Your task to perform on an android device: Open calendar and show me the first week of next month Image 0: 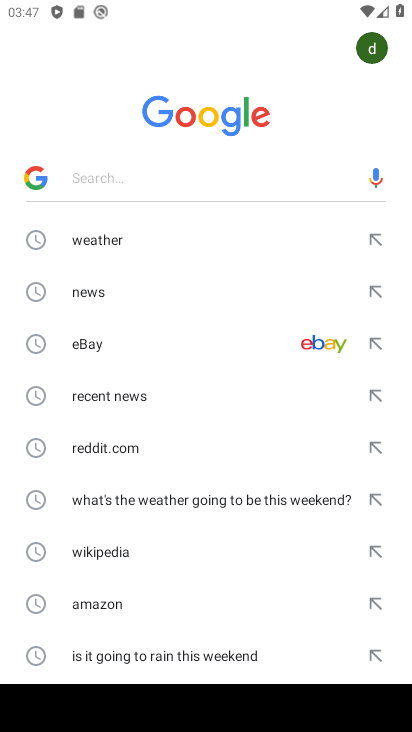
Step 0: press home button
Your task to perform on an android device: Open calendar and show me the first week of next month Image 1: 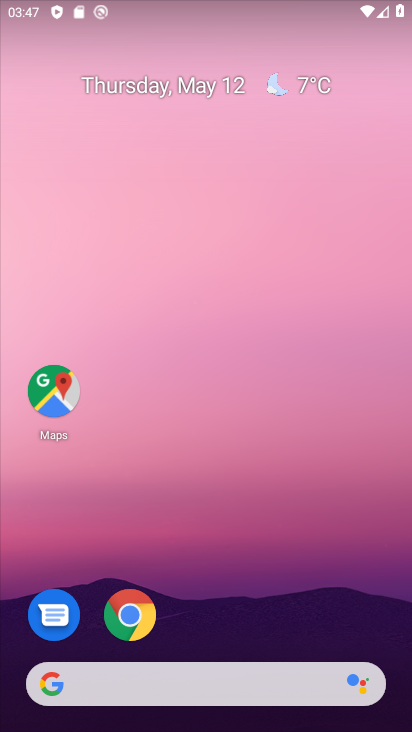
Step 1: drag from (227, 618) to (202, 49)
Your task to perform on an android device: Open calendar and show me the first week of next month Image 2: 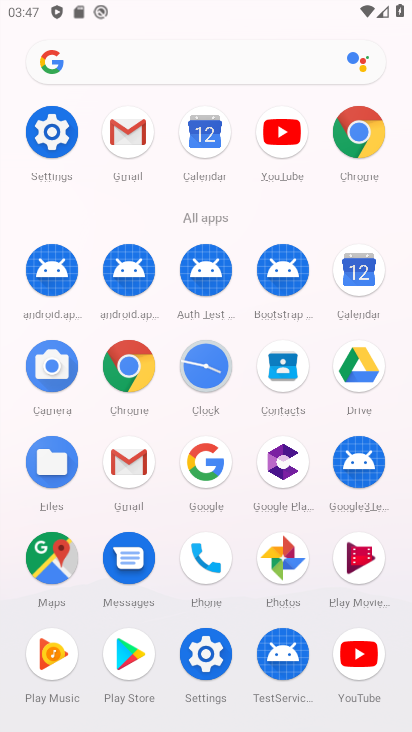
Step 2: click (361, 260)
Your task to perform on an android device: Open calendar and show me the first week of next month Image 3: 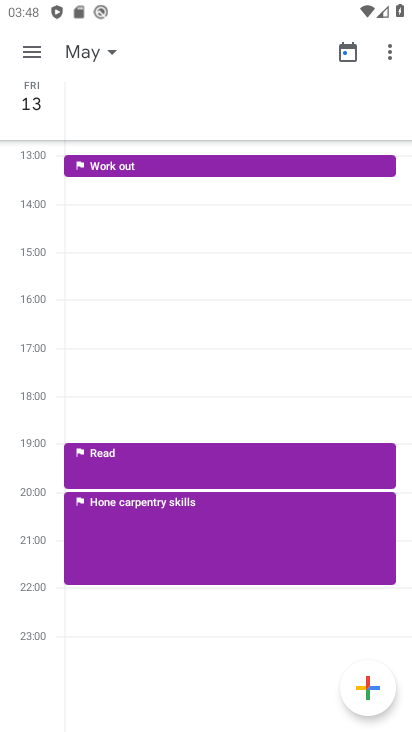
Step 3: click (98, 46)
Your task to perform on an android device: Open calendar and show me the first week of next month Image 4: 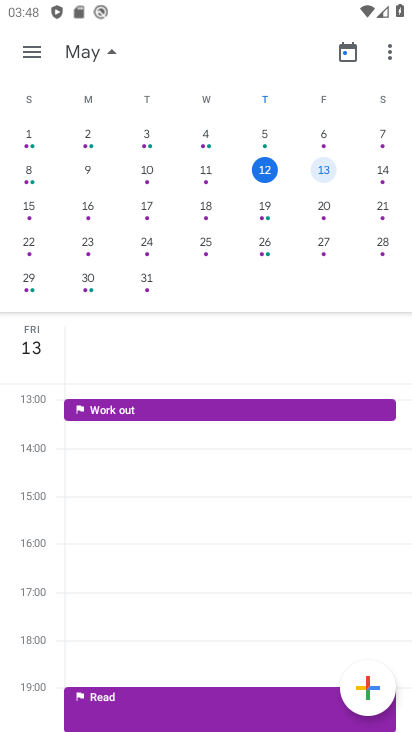
Step 4: click (98, 46)
Your task to perform on an android device: Open calendar and show me the first week of next month Image 5: 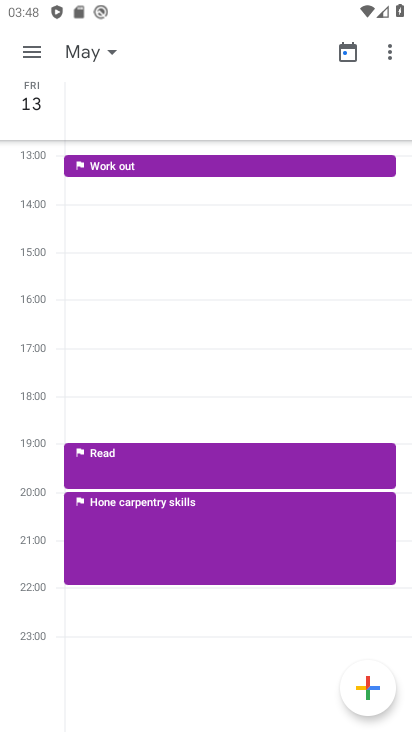
Step 5: click (69, 43)
Your task to perform on an android device: Open calendar and show me the first week of next month Image 6: 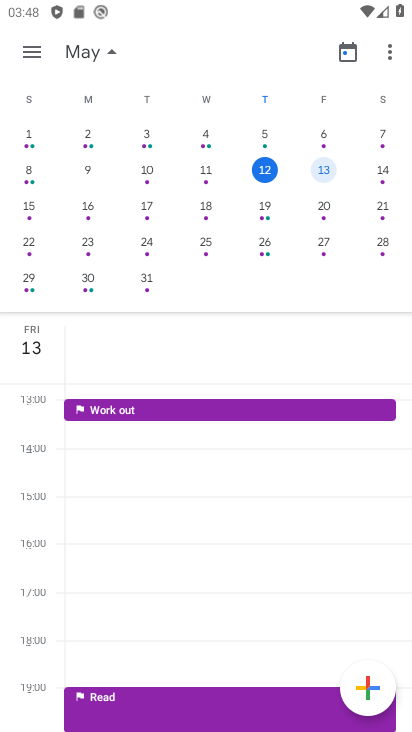
Step 6: drag from (370, 218) to (14, 182)
Your task to perform on an android device: Open calendar and show me the first week of next month Image 7: 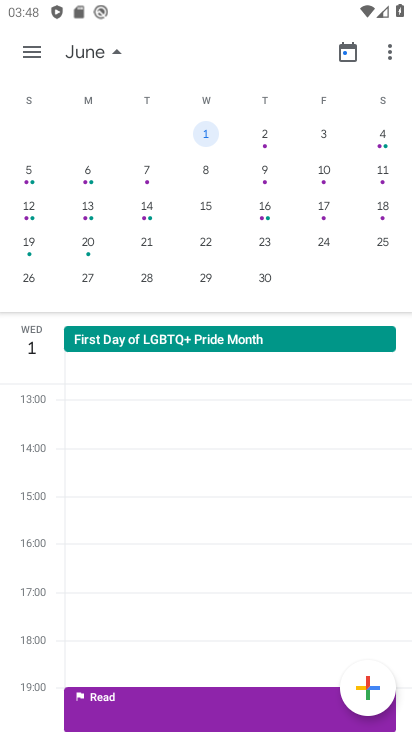
Step 7: click (22, 55)
Your task to perform on an android device: Open calendar and show me the first week of next month Image 8: 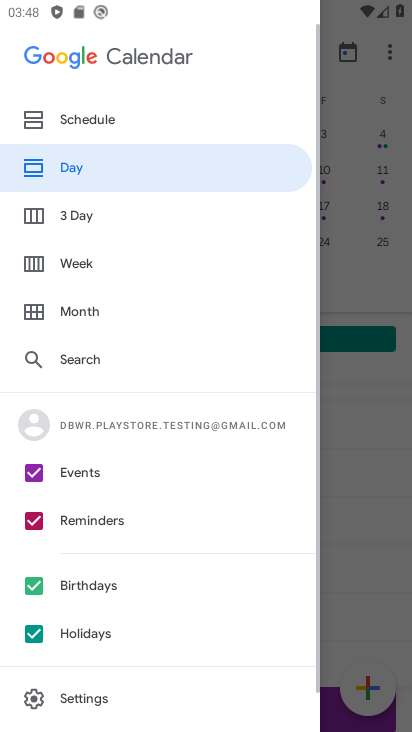
Step 8: drag from (141, 296) to (136, 148)
Your task to perform on an android device: Open calendar and show me the first week of next month Image 9: 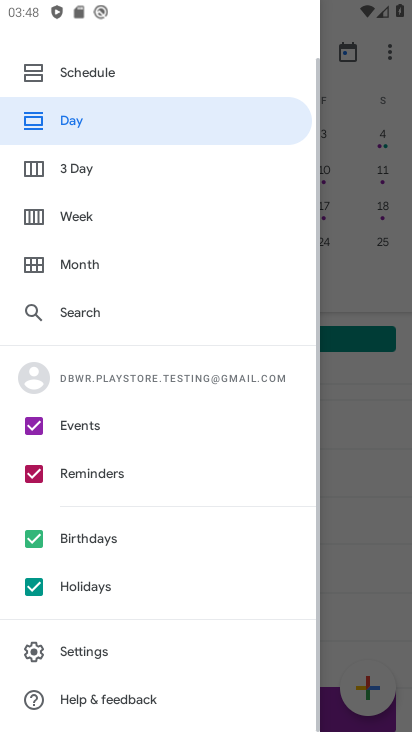
Step 9: drag from (211, 246) to (212, 424)
Your task to perform on an android device: Open calendar and show me the first week of next month Image 10: 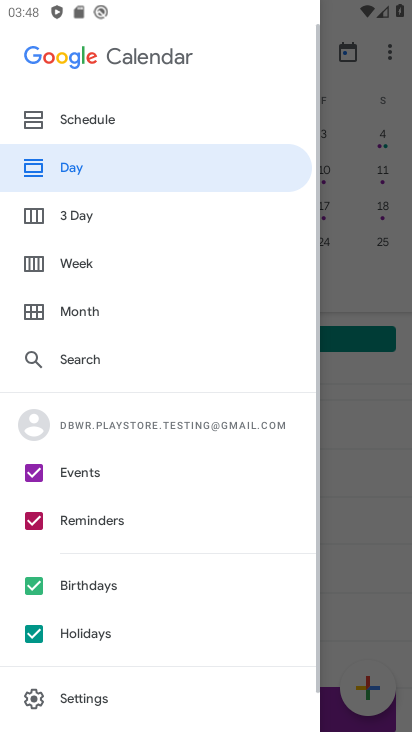
Step 10: click (79, 260)
Your task to perform on an android device: Open calendar and show me the first week of next month Image 11: 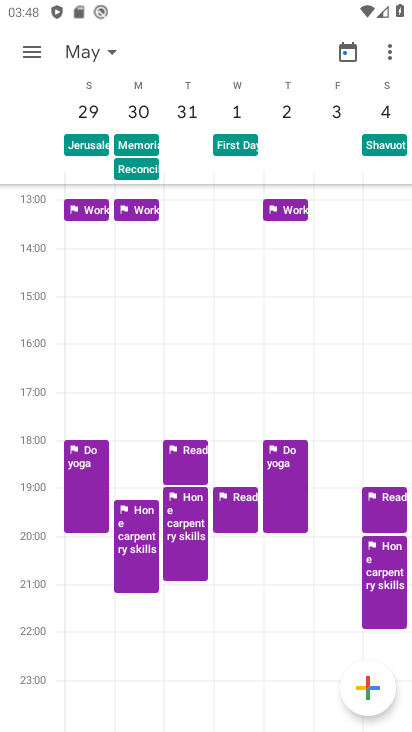
Step 11: drag from (260, 178) to (276, 399)
Your task to perform on an android device: Open calendar and show me the first week of next month Image 12: 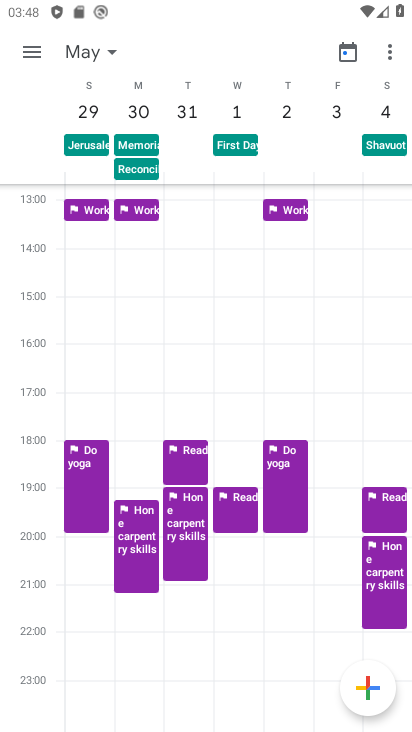
Step 12: click (325, 229)
Your task to perform on an android device: Open calendar and show me the first week of next month Image 13: 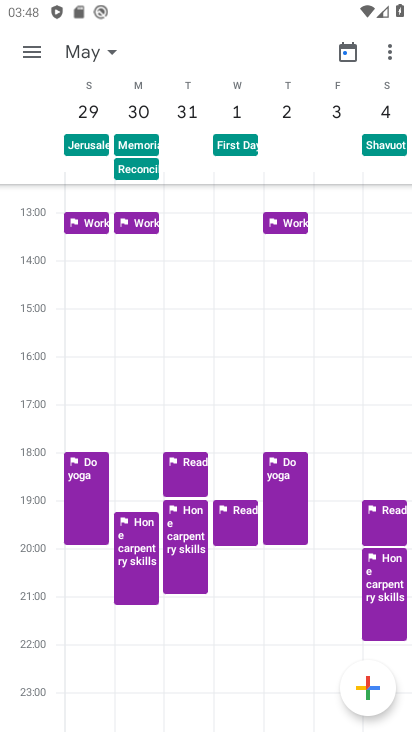
Step 13: task complete